Your task to perform on an android device: Search for "razer huntsman" on target.com, select the first entry, add it to the cart, then select checkout. Image 0: 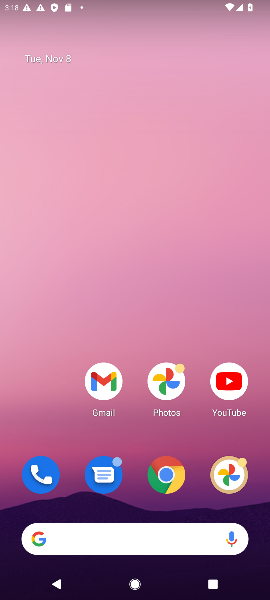
Step 0: drag from (104, 524) to (112, 130)
Your task to perform on an android device: Search for "razer huntsman" on target.com, select the first entry, add it to the cart, then select checkout. Image 1: 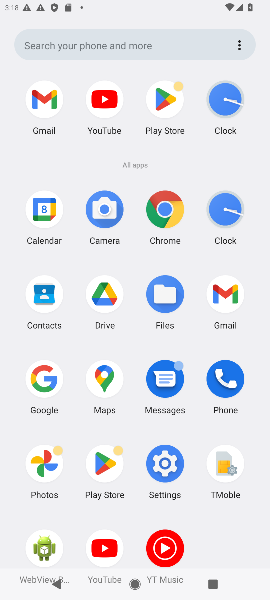
Step 1: click (42, 373)
Your task to perform on an android device: Search for "razer huntsman" on target.com, select the first entry, add it to the cart, then select checkout. Image 2: 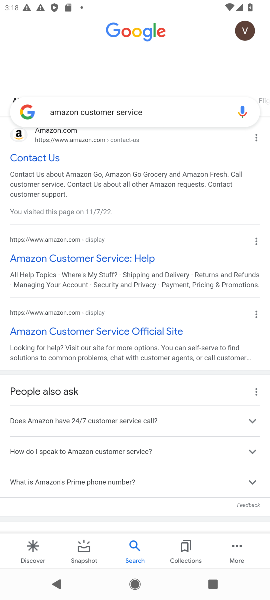
Step 2: click (146, 115)
Your task to perform on an android device: Search for "razer huntsman" on target.com, select the first entry, add it to the cart, then select checkout. Image 3: 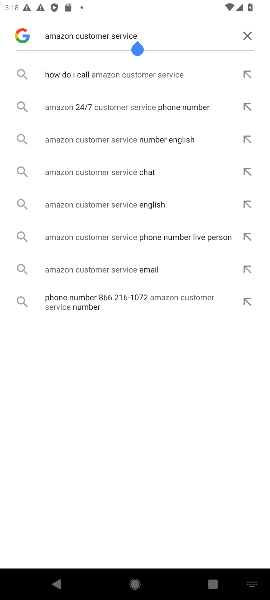
Step 3: click (249, 41)
Your task to perform on an android device: Search for "razer huntsman" on target.com, select the first entry, add it to the cart, then select checkout. Image 4: 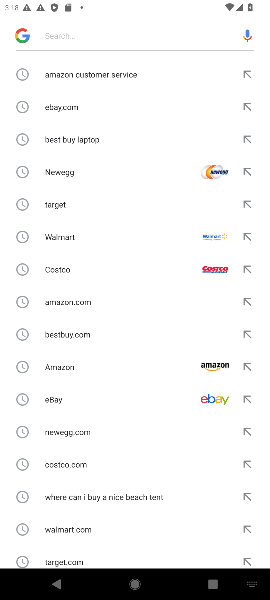
Step 4: click (184, 33)
Your task to perform on an android device: Search for "razer huntsman" on target.com, select the first entry, add it to the cart, then select checkout. Image 5: 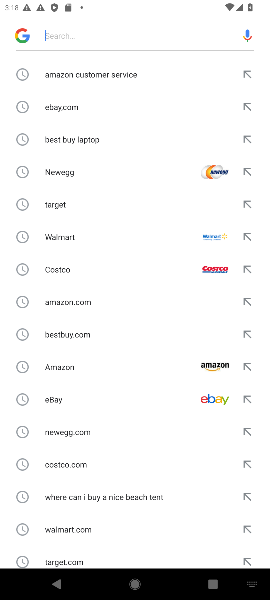
Step 5: type "target  "
Your task to perform on an android device: Search for "razer huntsman" on target.com, select the first entry, add it to the cart, then select checkout. Image 6: 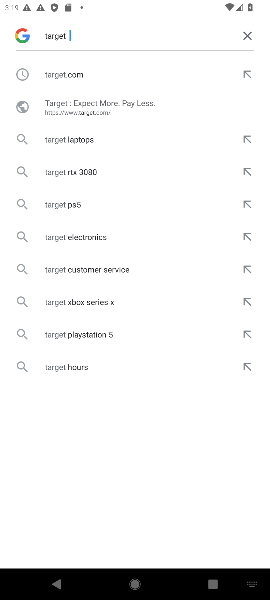
Step 6: click (75, 71)
Your task to perform on an android device: Search for "razer huntsman" on target.com, select the first entry, add it to the cart, then select checkout. Image 7: 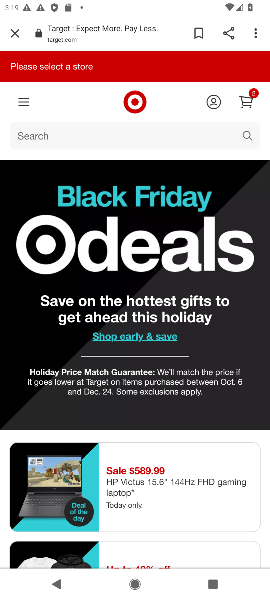
Step 7: click (64, 135)
Your task to perform on an android device: Search for "razer huntsman" on target.com, select the first entry, add it to the cart, then select checkout. Image 8: 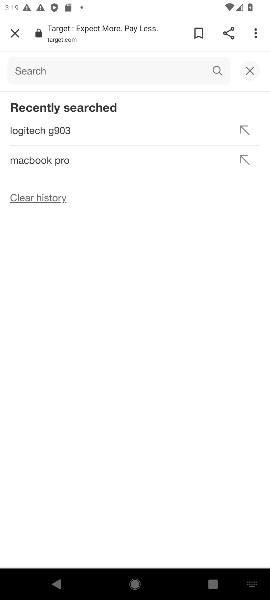
Step 8: type "razer huntsman "
Your task to perform on an android device: Search for "razer huntsman" on target.com, select the first entry, add it to the cart, then select checkout. Image 9: 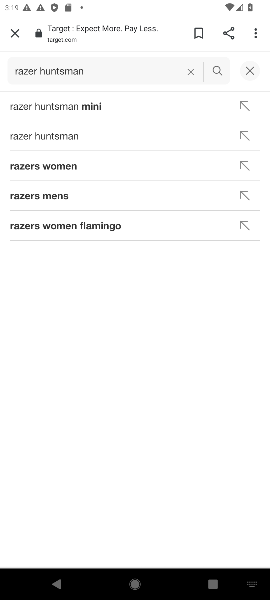
Step 9: click (66, 136)
Your task to perform on an android device: Search for "razer huntsman" on target.com, select the first entry, add it to the cart, then select checkout. Image 10: 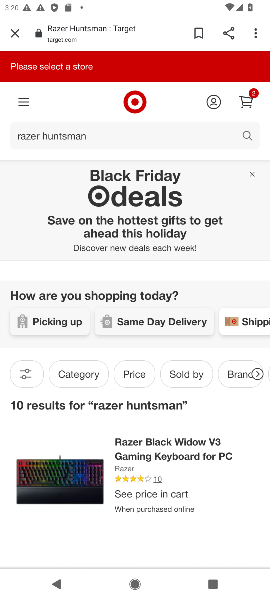
Step 10: click (149, 464)
Your task to perform on an android device: Search for "razer huntsman" on target.com, select the first entry, add it to the cart, then select checkout. Image 11: 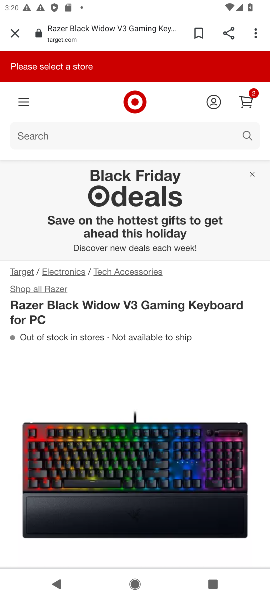
Step 11: drag from (156, 496) to (164, 61)
Your task to perform on an android device: Search for "razer huntsman" on target.com, select the first entry, add it to the cart, then select checkout. Image 12: 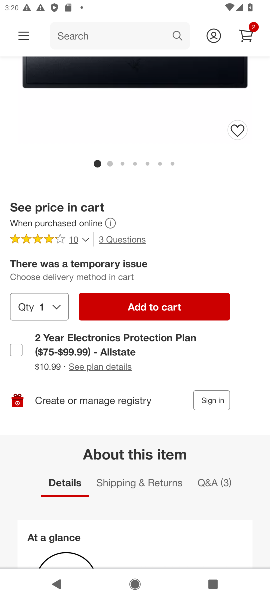
Step 12: click (163, 297)
Your task to perform on an android device: Search for "razer huntsman" on target.com, select the first entry, add it to the cart, then select checkout. Image 13: 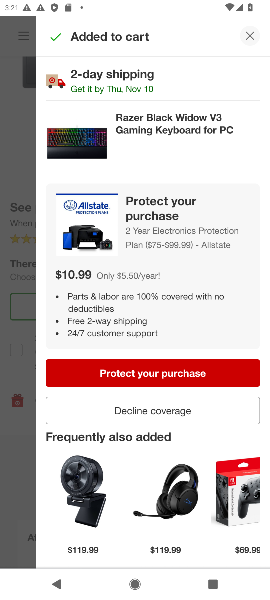
Step 13: task complete